Your task to perform on an android device: Clear the shopping cart on ebay.com. Add usb-b to the cart on ebay.com, then select checkout. Image 0: 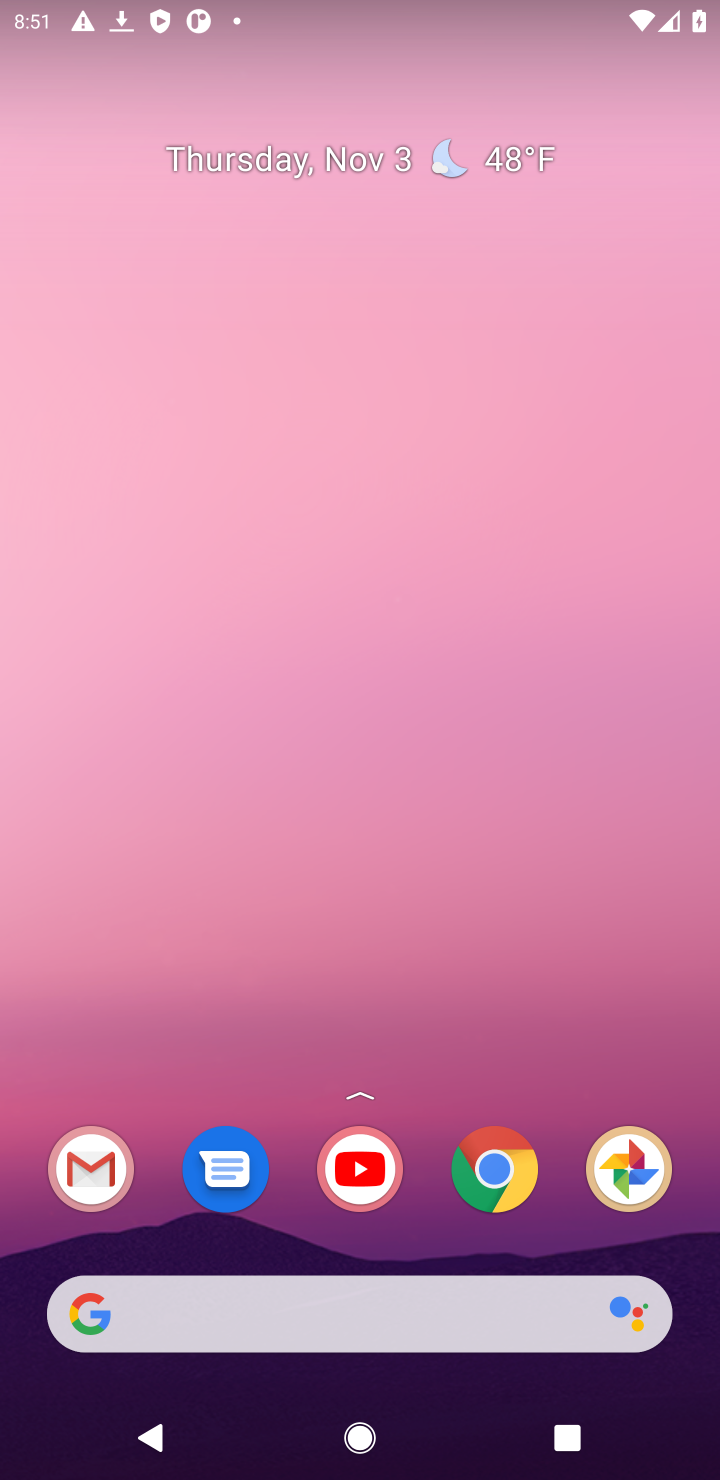
Step 0: drag from (421, 825) to (394, 51)
Your task to perform on an android device: Clear the shopping cart on ebay.com. Add usb-b to the cart on ebay.com, then select checkout. Image 1: 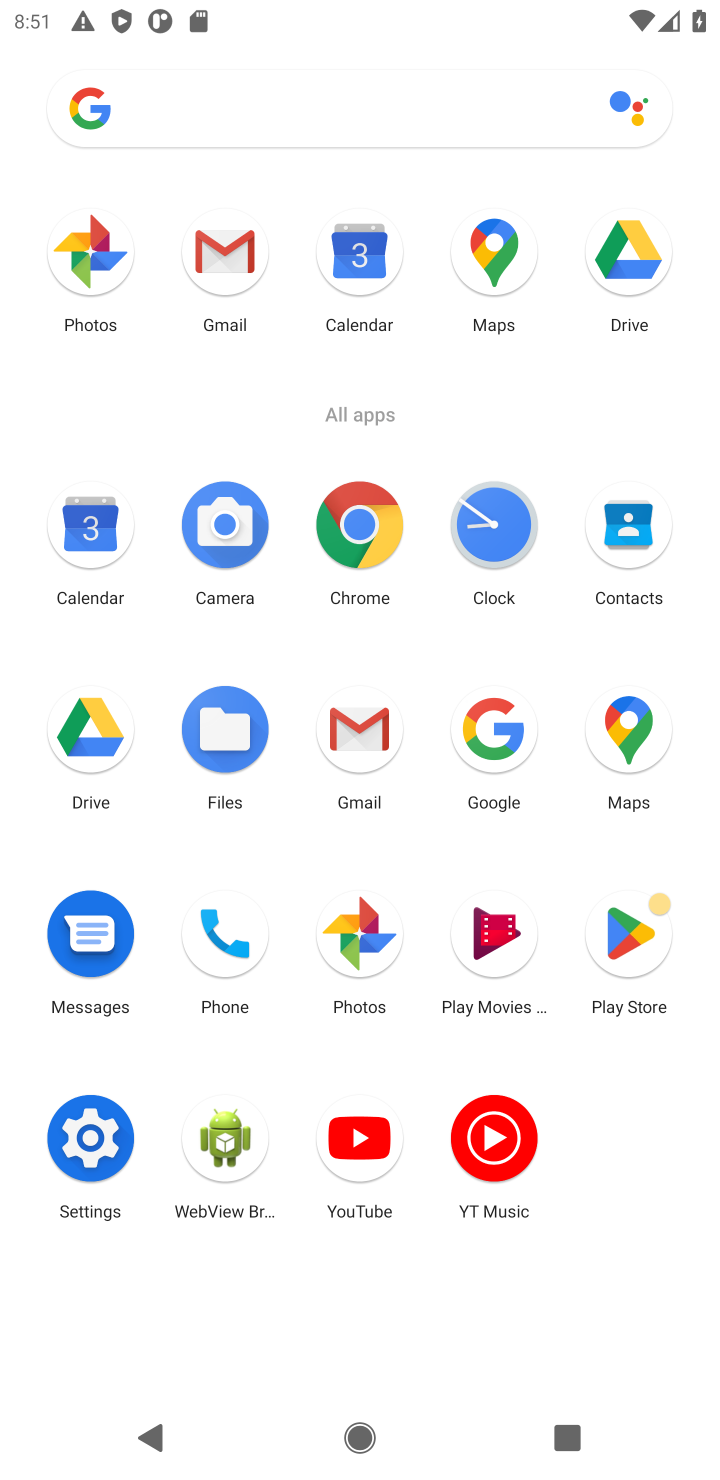
Step 1: click (348, 527)
Your task to perform on an android device: Clear the shopping cart on ebay.com. Add usb-b to the cart on ebay.com, then select checkout. Image 2: 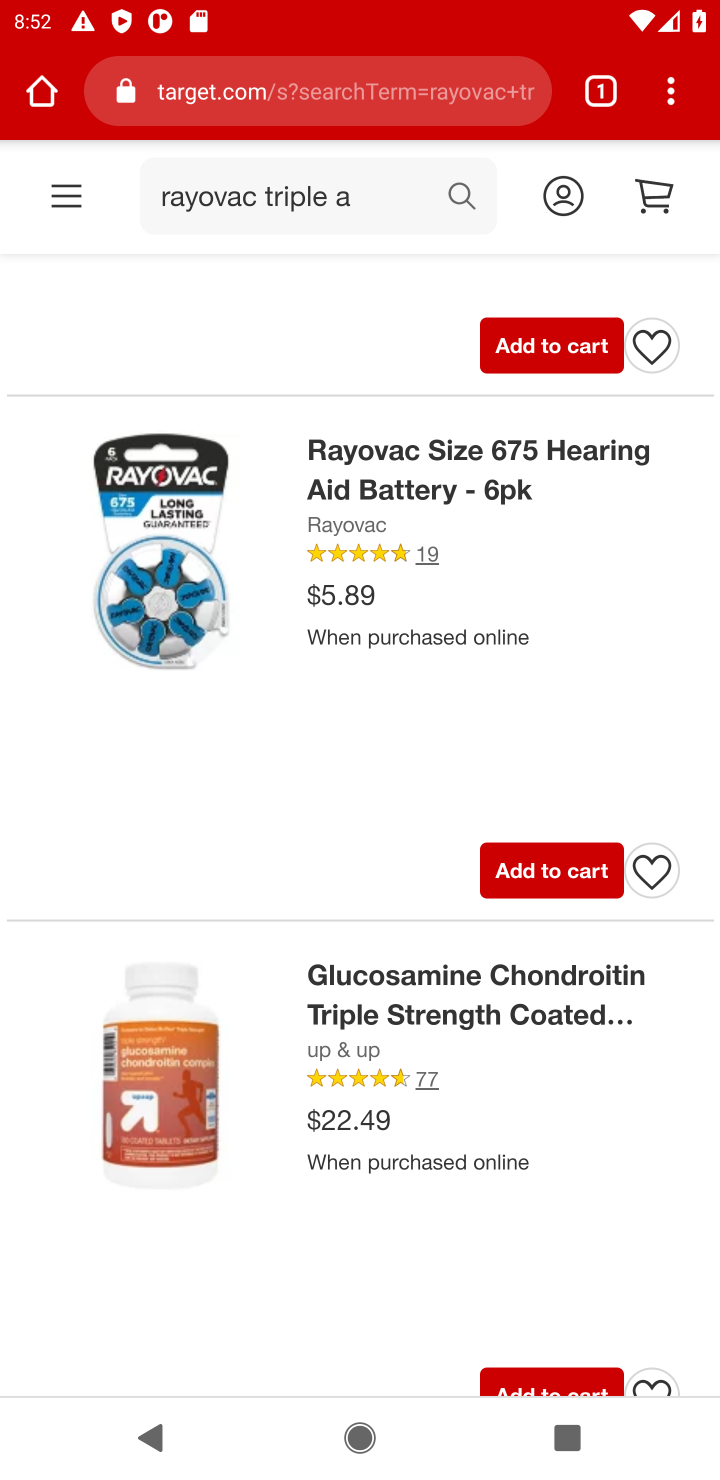
Step 2: click (491, 86)
Your task to perform on an android device: Clear the shopping cart on ebay.com. Add usb-b to the cart on ebay.com, then select checkout. Image 3: 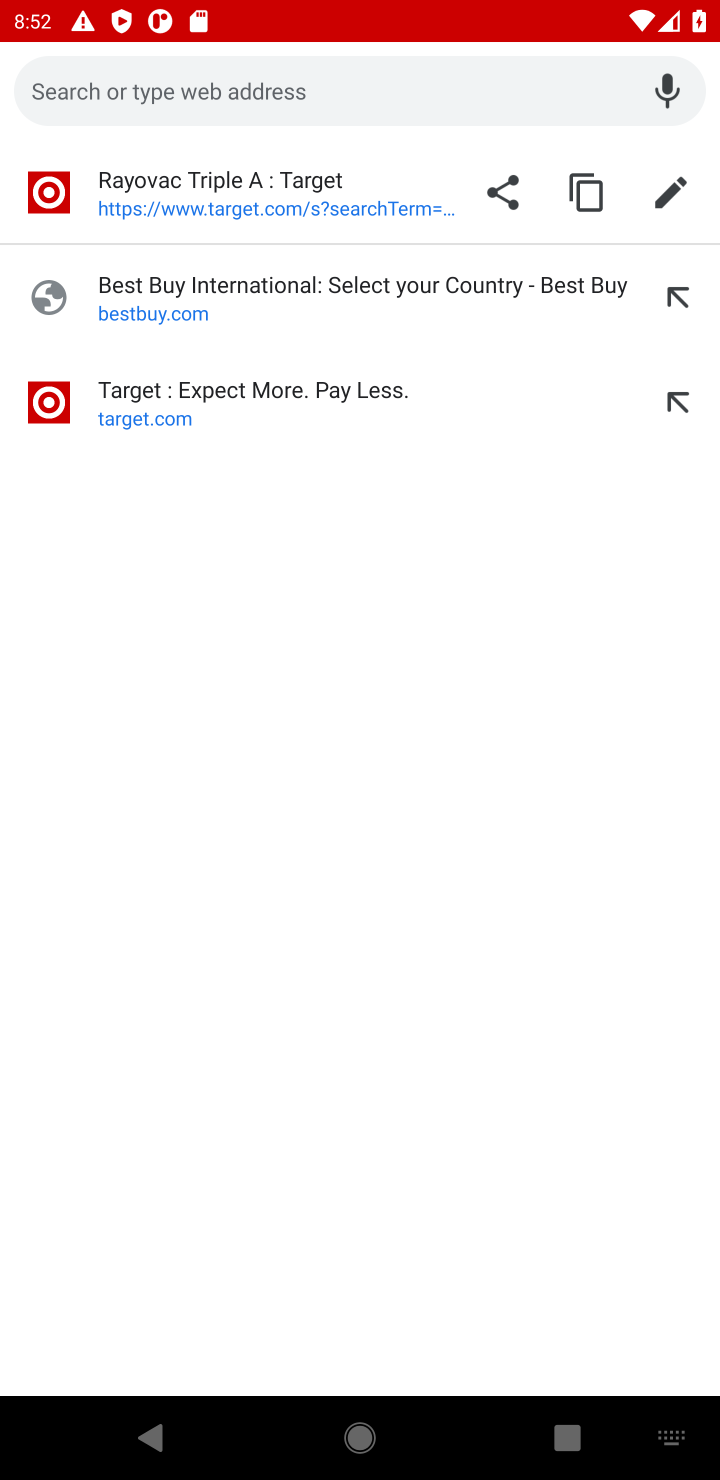
Step 3: type "ebay.com"
Your task to perform on an android device: Clear the shopping cart on ebay.com. Add usb-b to the cart on ebay.com, then select checkout. Image 4: 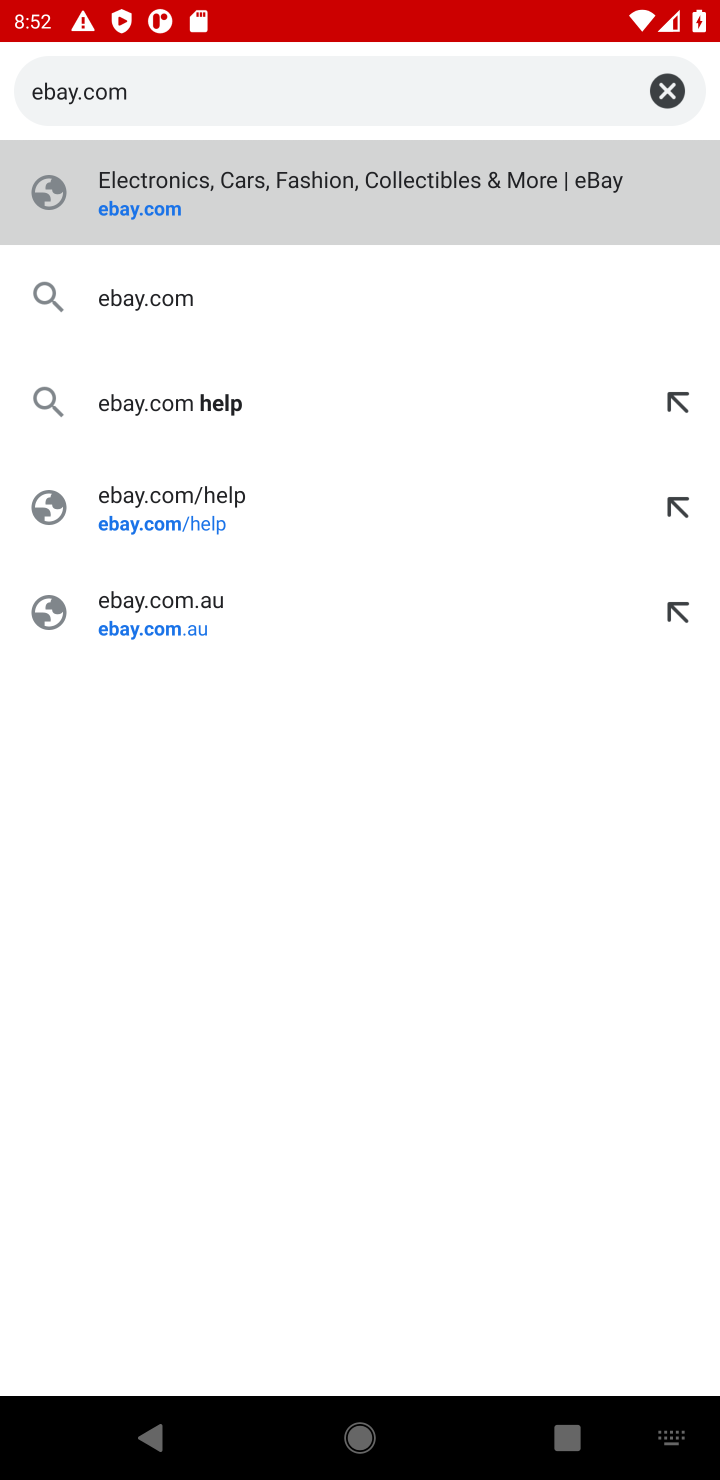
Step 4: press enter
Your task to perform on an android device: Clear the shopping cart on ebay.com. Add usb-b to the cart on ebay.com, then select checkout. Image 5: 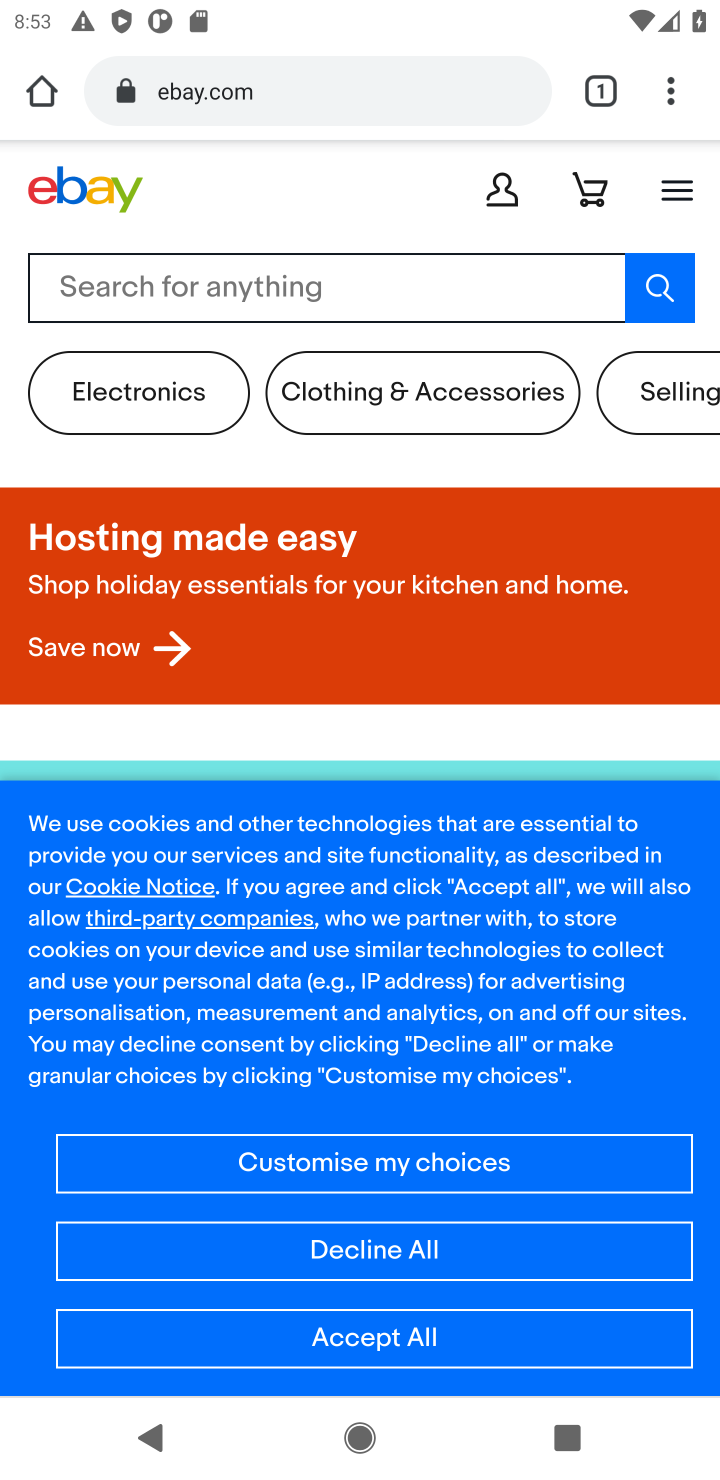
Step 5: click (570, 187)
Your task to perform on an android device: Clear the shopping cart on ebay.com. Add usb-b to the cart on ebay.com, then select checkout. Image 6: 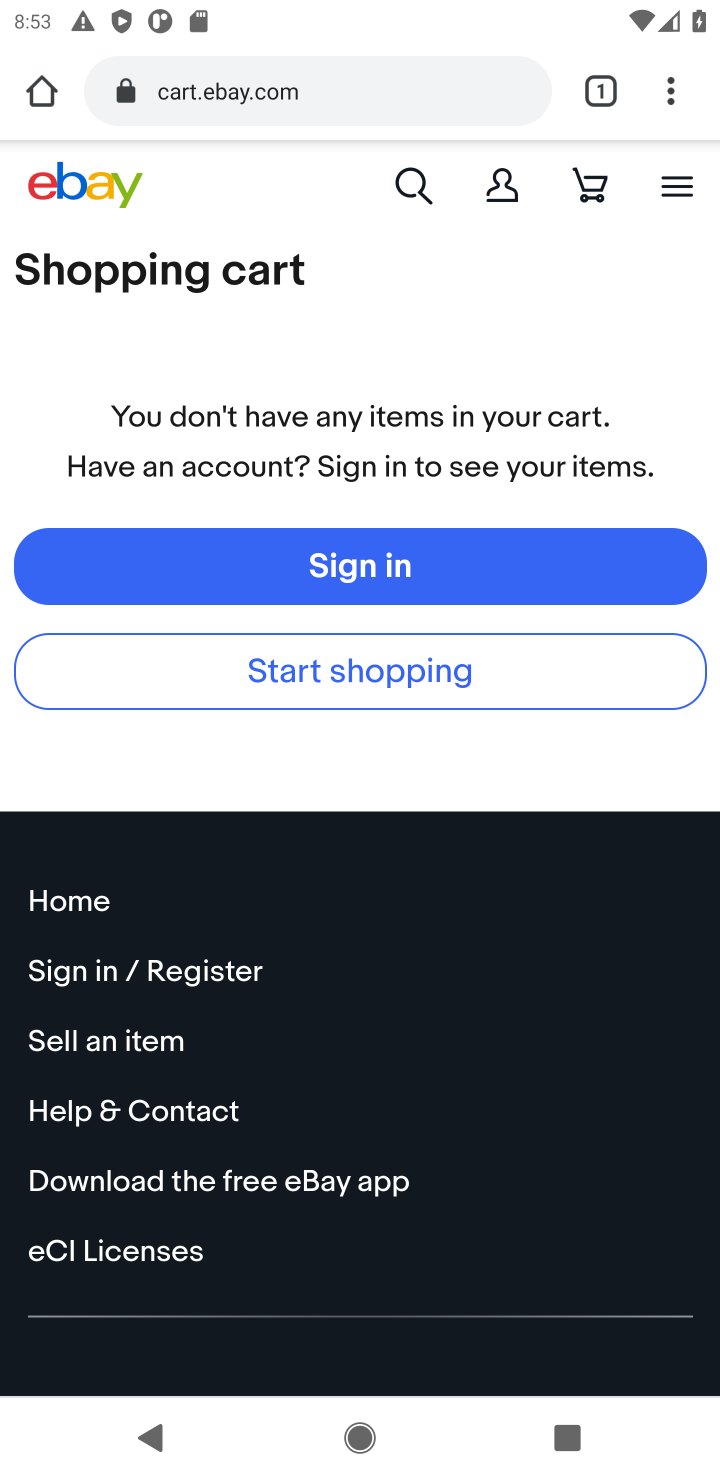
Step 6: click (407, 194)
Your task to perform on an android device: Clear the shopping cart on ebay.com. Add usb-b to the cart on ebay.com, then select checkout. Image 7: 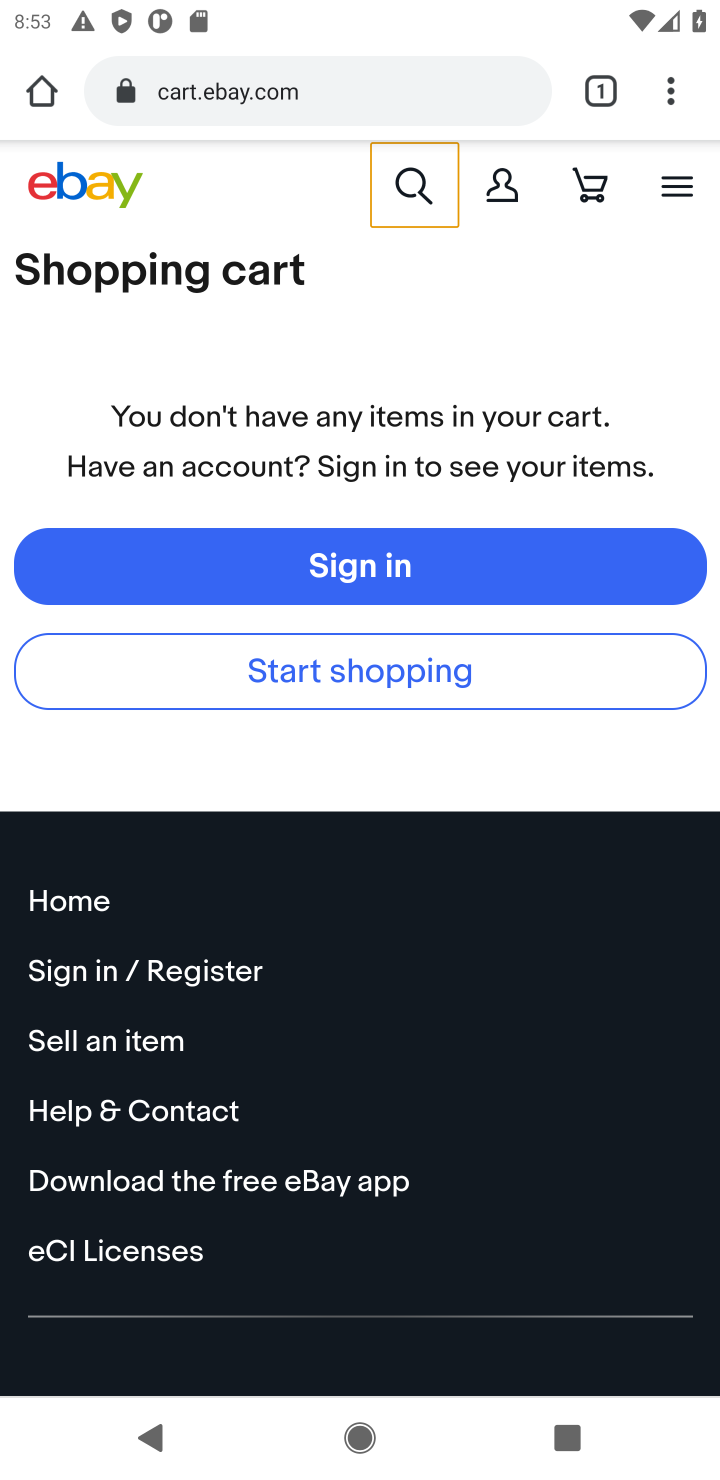
Step 7: click (438, 681)
Your task to perform on an android device: Clear the shopping cart on ebay.com. Add usb-b to the cart on ebay.com, then select checkout. Image 8: 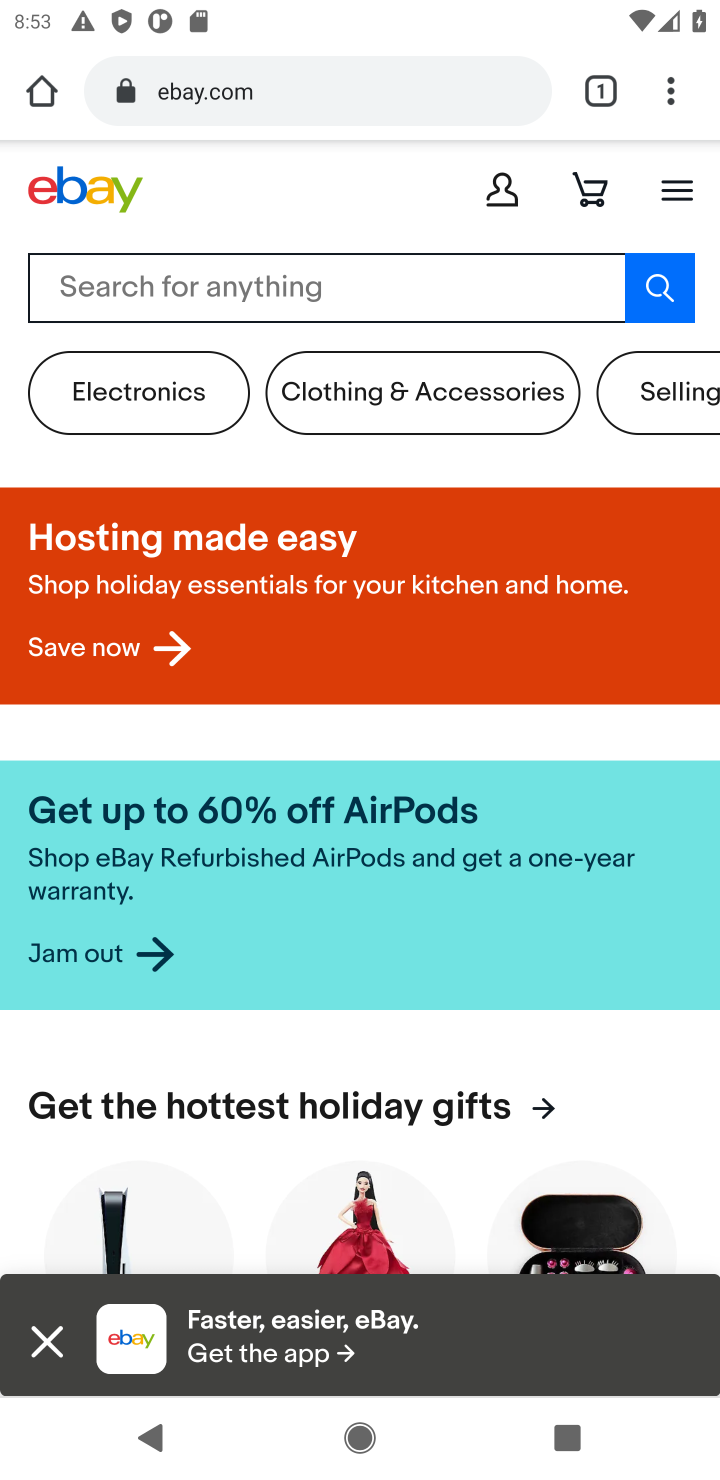
Step 8: click (386, 291)
Your task to perform on an android device: Clear the shopping cart on ebay.com. Add usb-b to the cart on ebay.com, then select checkout. Image 9: 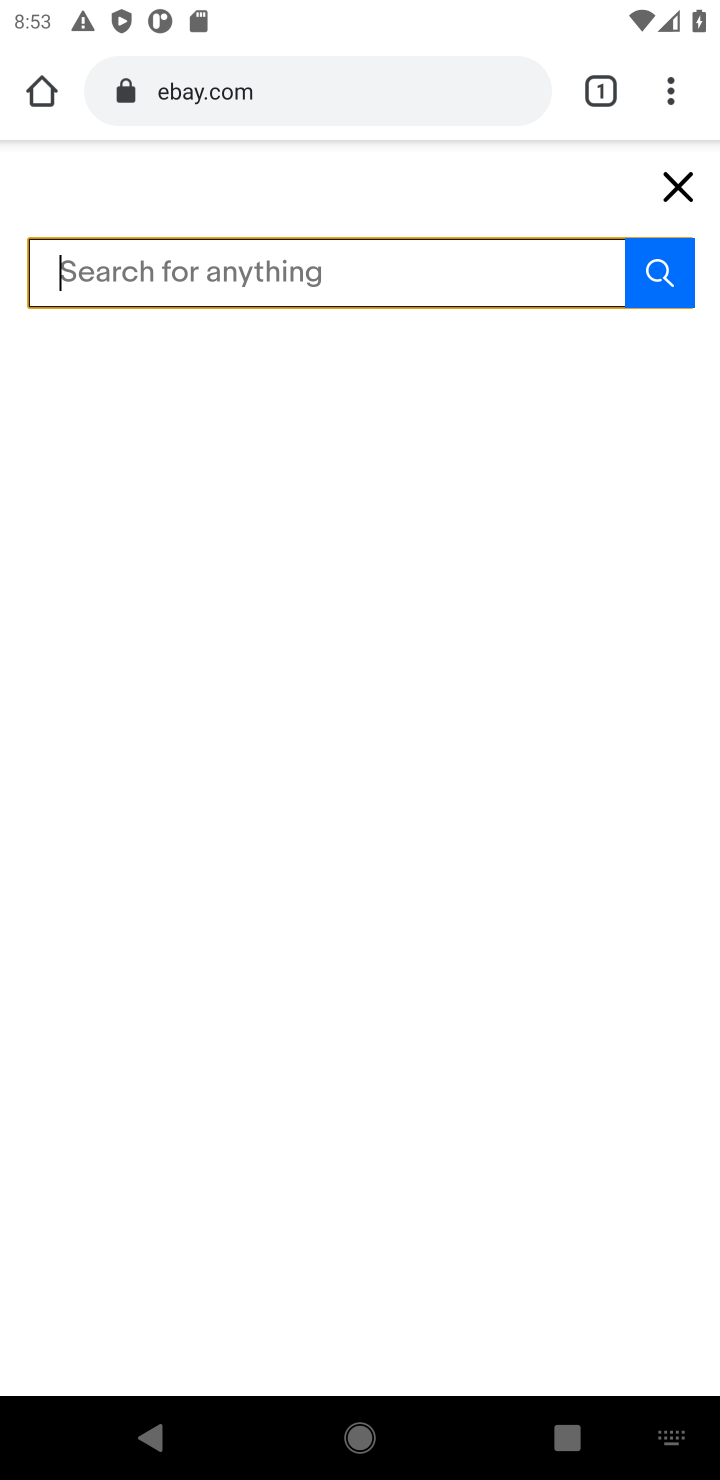
Step 9: type "usb-b"
Your task to perform on an android device: Clear the shopping cart on ebay.com. Add usb-b to the cart on ebay.com, then select checkout. Image 10: 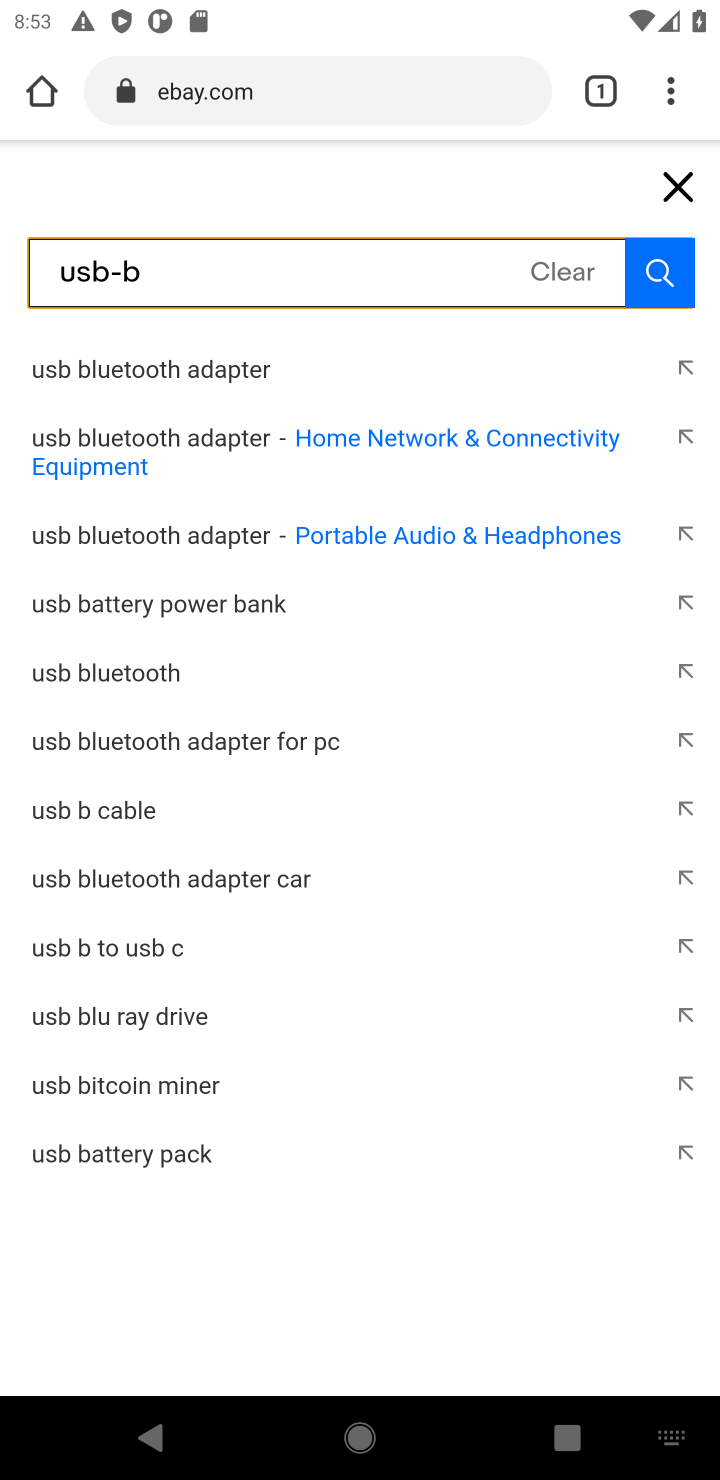
Step 10: press enter
Your task to perform on an android device: Clear the shopping cart on ebay.com. Add usb-b to the cart on ebay.com, then select checkout. Image 11: 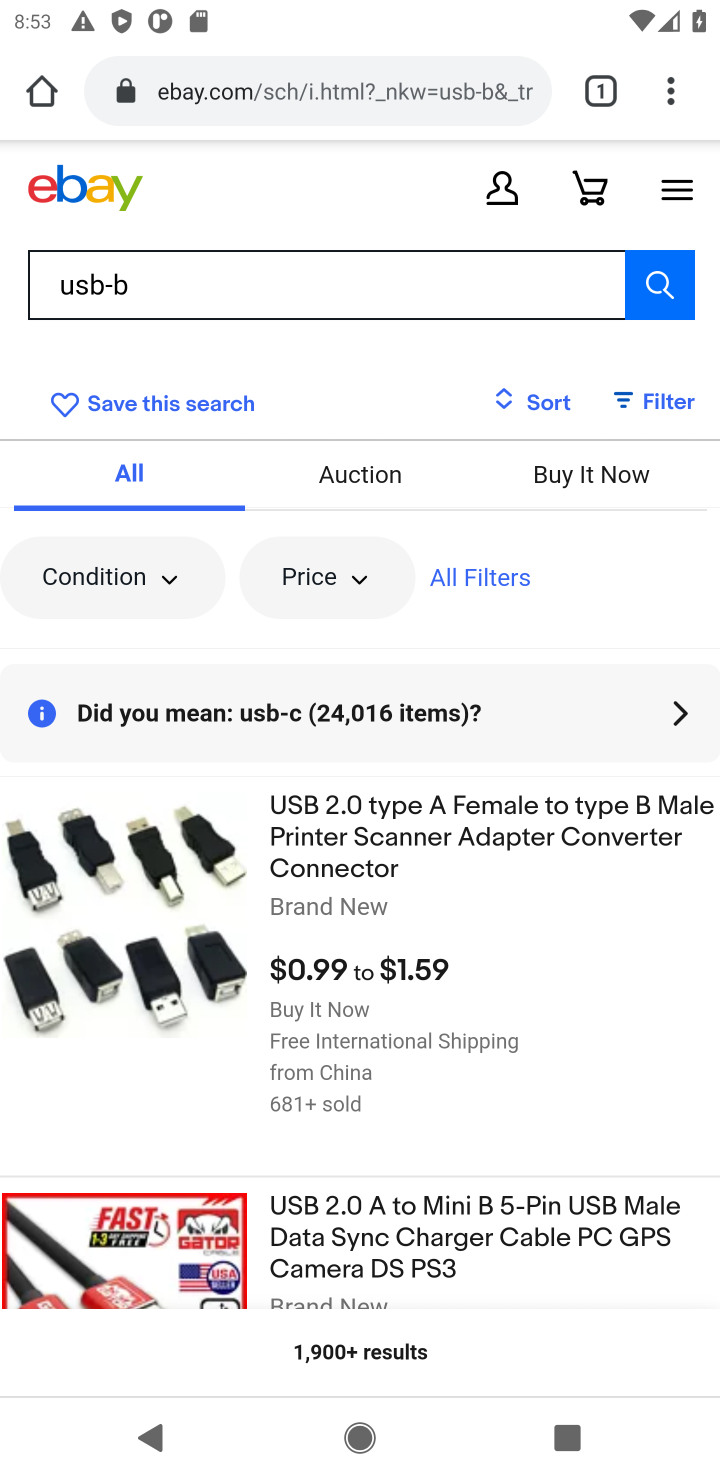
Step 11: drag from (303, 1235) to (373, 771)
Your task to perform on an android device: Clear the shopping cart on ebay.com. Add usb-b to the cart on ebay.com, then select checkout. Image 12: 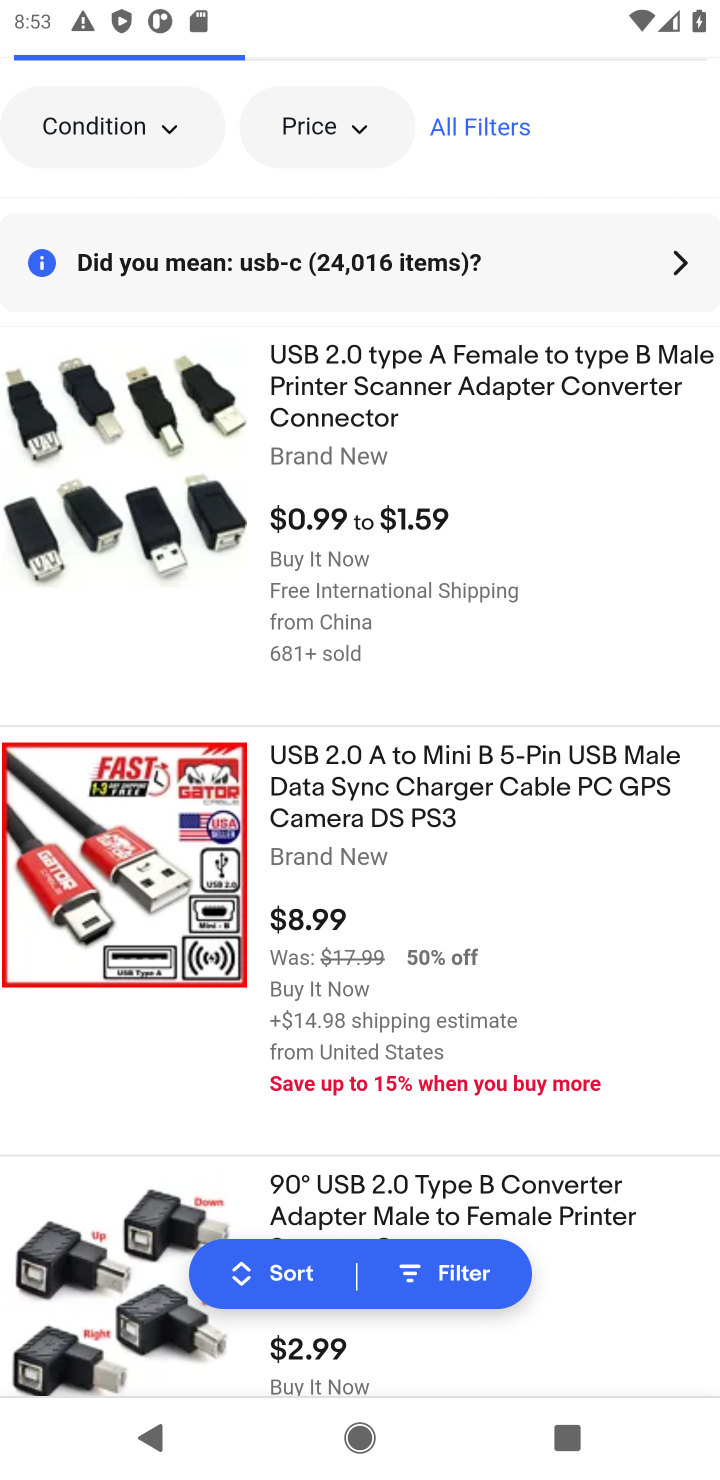
Step 12: click (175, 450)
Your task to perform on an android device: Clear the shopping cart on ebay.com. Add usb-b to the cart on ebay.com, then select checkout. Image 13: 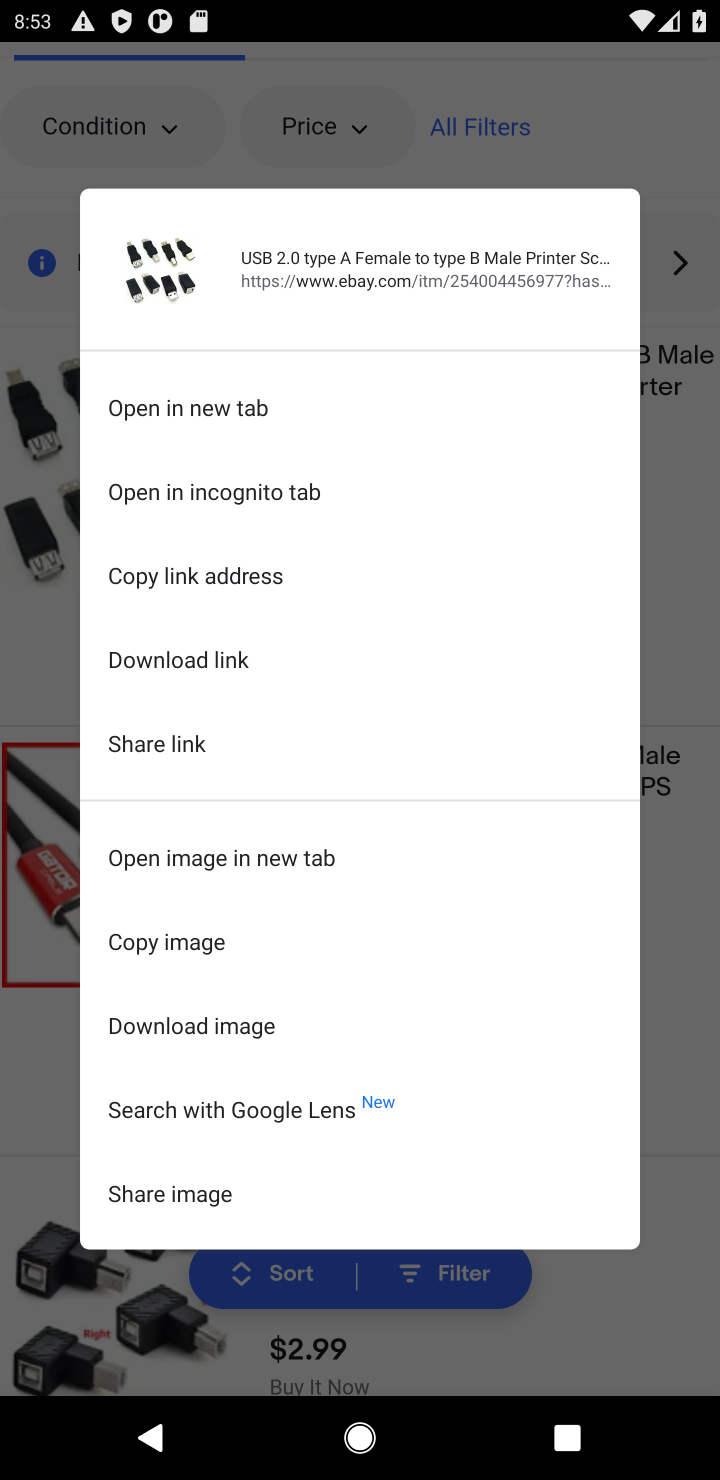
Step 13: click (294, 140)
Your task to perform on an android device: Clear the shopping cart on ebay.com. Add usb-b to the cart on ebay.com, then select checkout. Image 14: 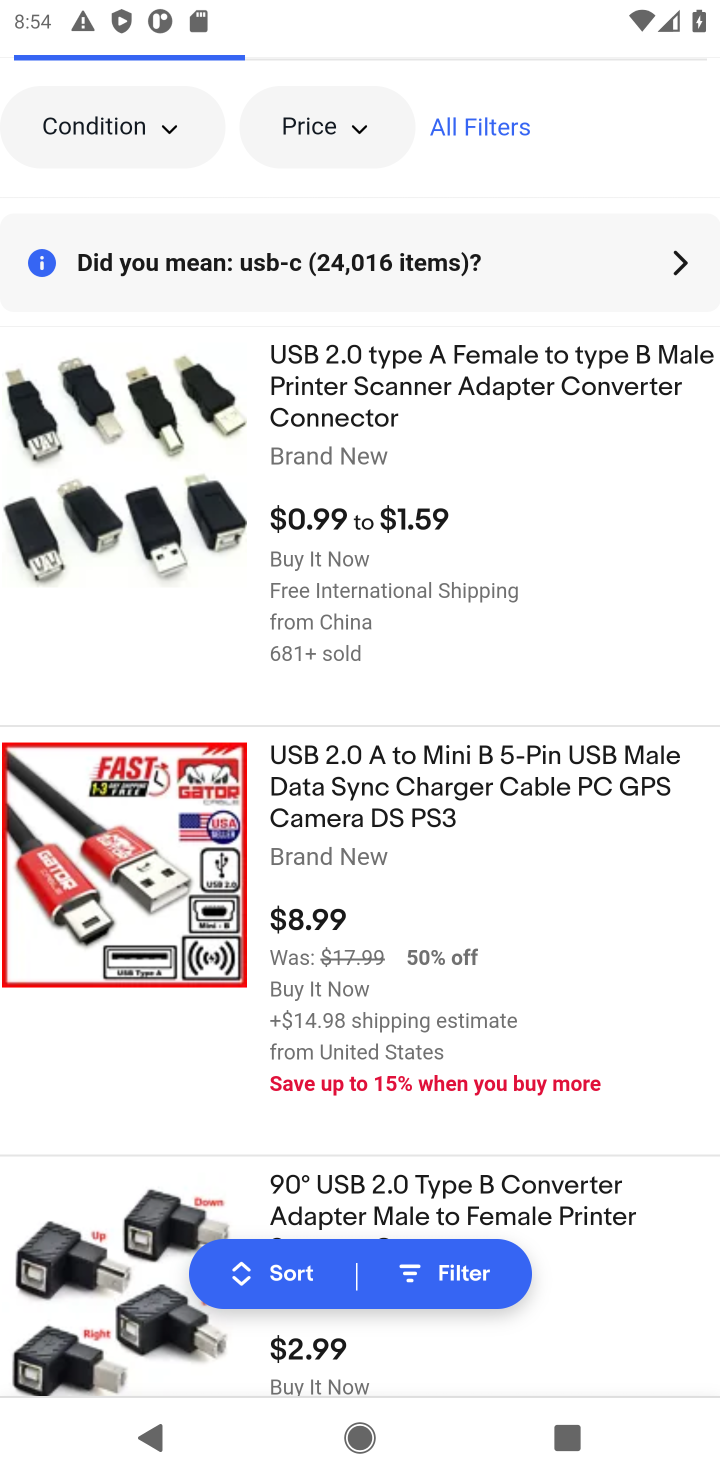
Step 14: click (331, 112)
Your task to perform on an android device: Clear the shopping cart on ebay.com. Add usb-b to the cart on ebay.com, then select checkout. Image 15: 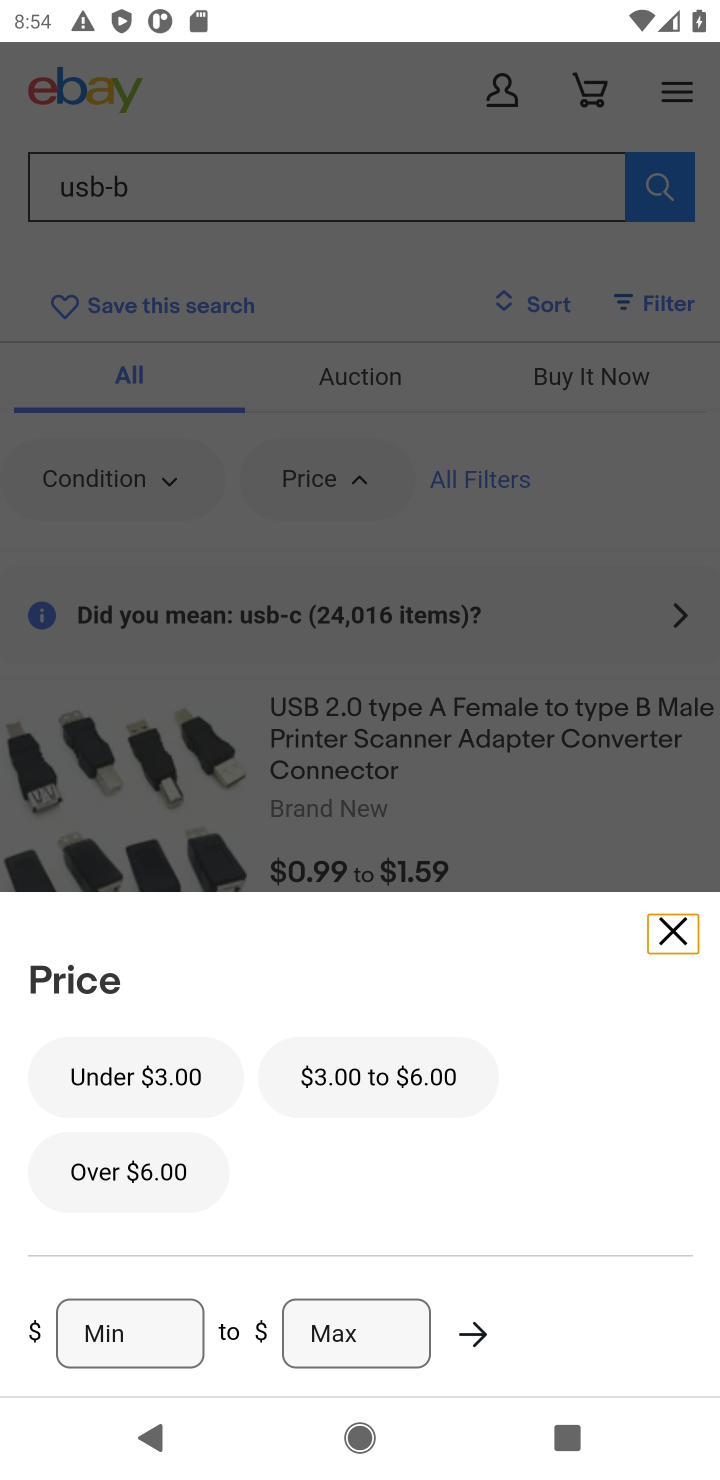
Step 15: click (298, 394)
Your task to perform on an android device: Clear the shopping cart on ebay.com. Add usb-b to the cart on ebay.com, then select checkout. Image 16: 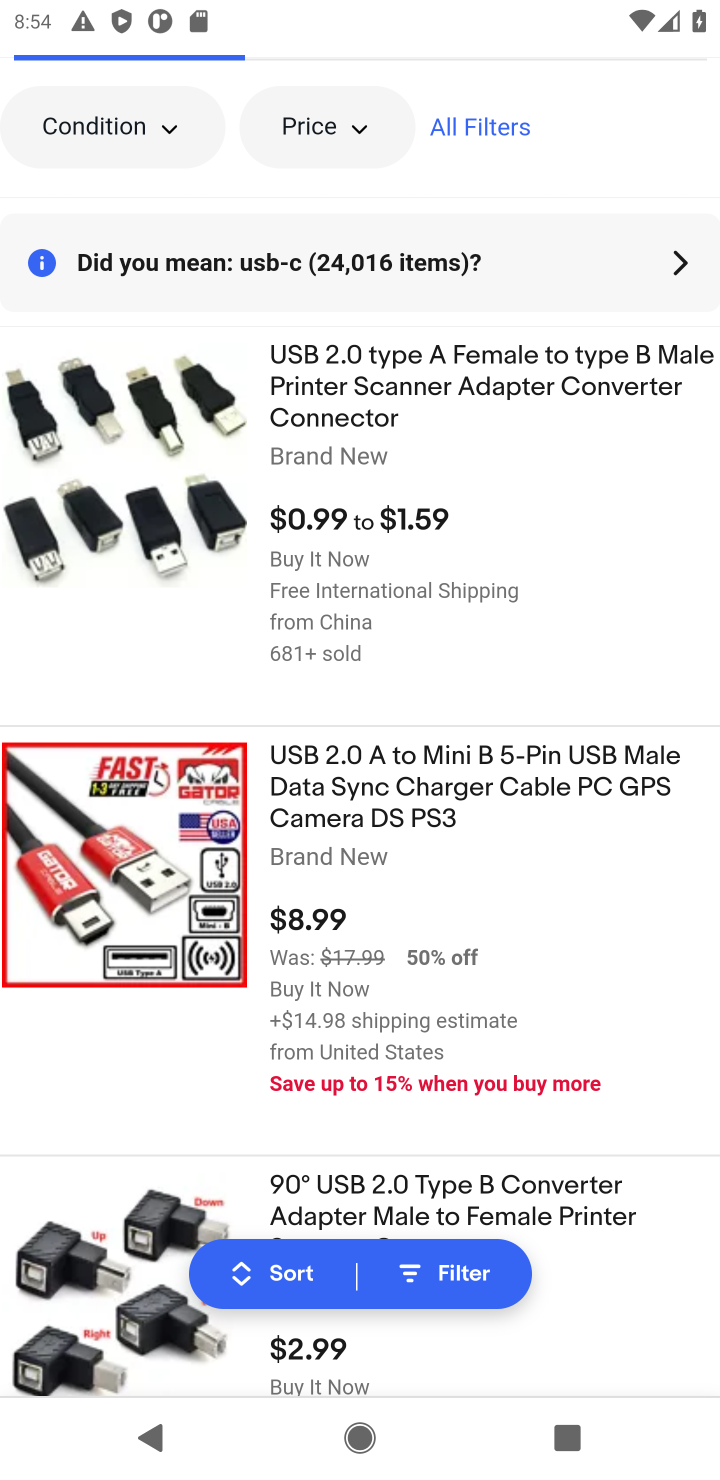
Step 16: click (122, 478)
Your task to perform on an android device: Clear the shopping cart on ebay.com. Add usb-b to the cart on ebay.com, then select checkout. Image 17: 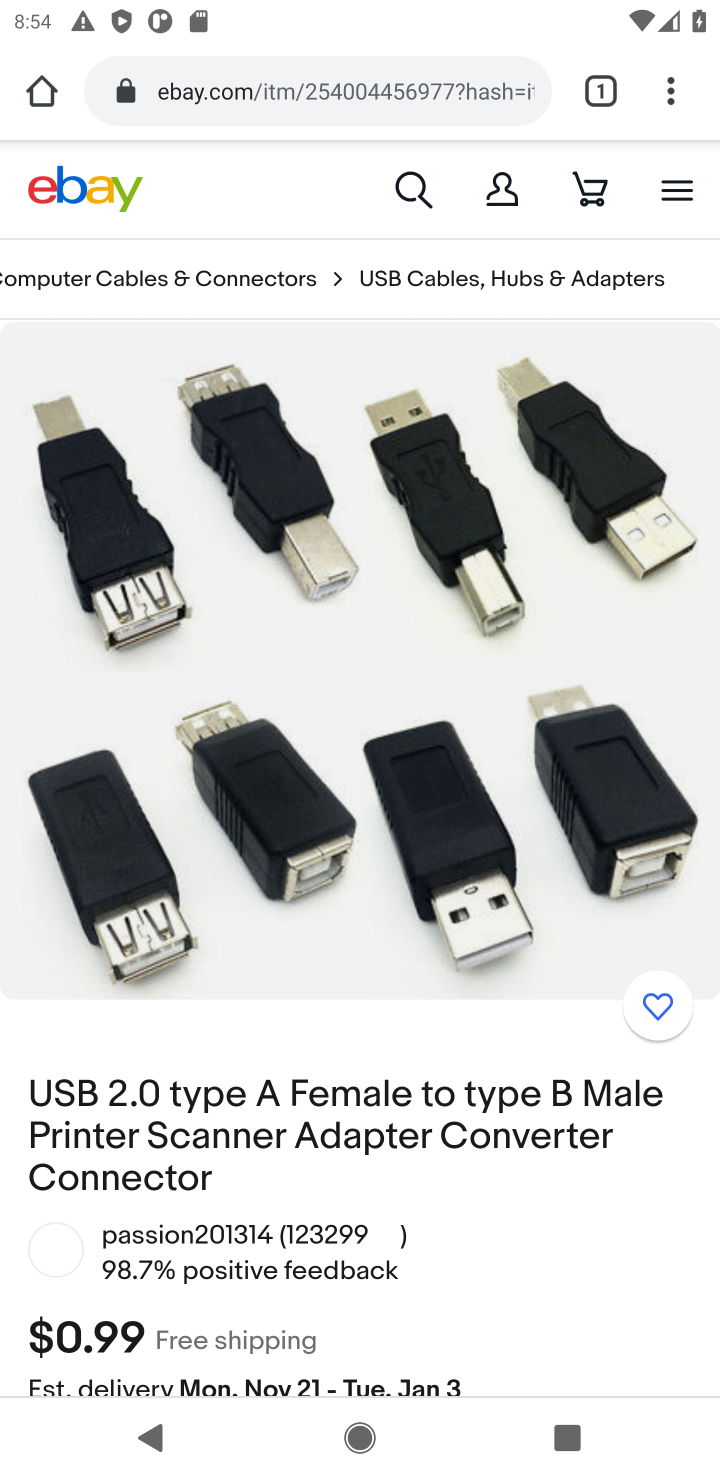
Step 17: drag from (311, 745) to (312, 423)
Your task to perform on an android device: Clear the shopping cart on ebay.com. Add usb-b to the cart on ebay.com, then select checkout. Image 18: 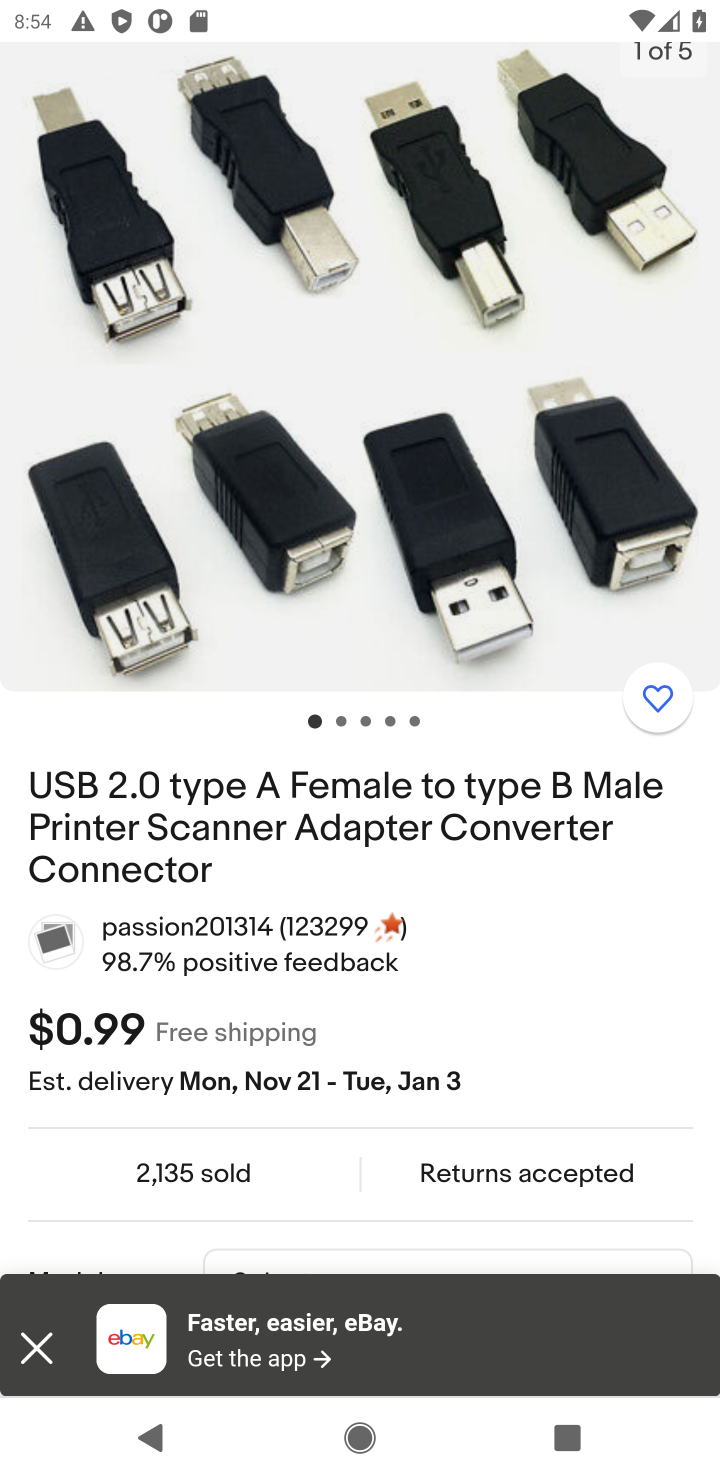
Step 18: drag from (361, 790) to (419, 320)
Your task to perform on an android device: Clear the shopping cart on ebay.com. Add usb-b to the cart on ebay.com, then select checkout. Image 19: 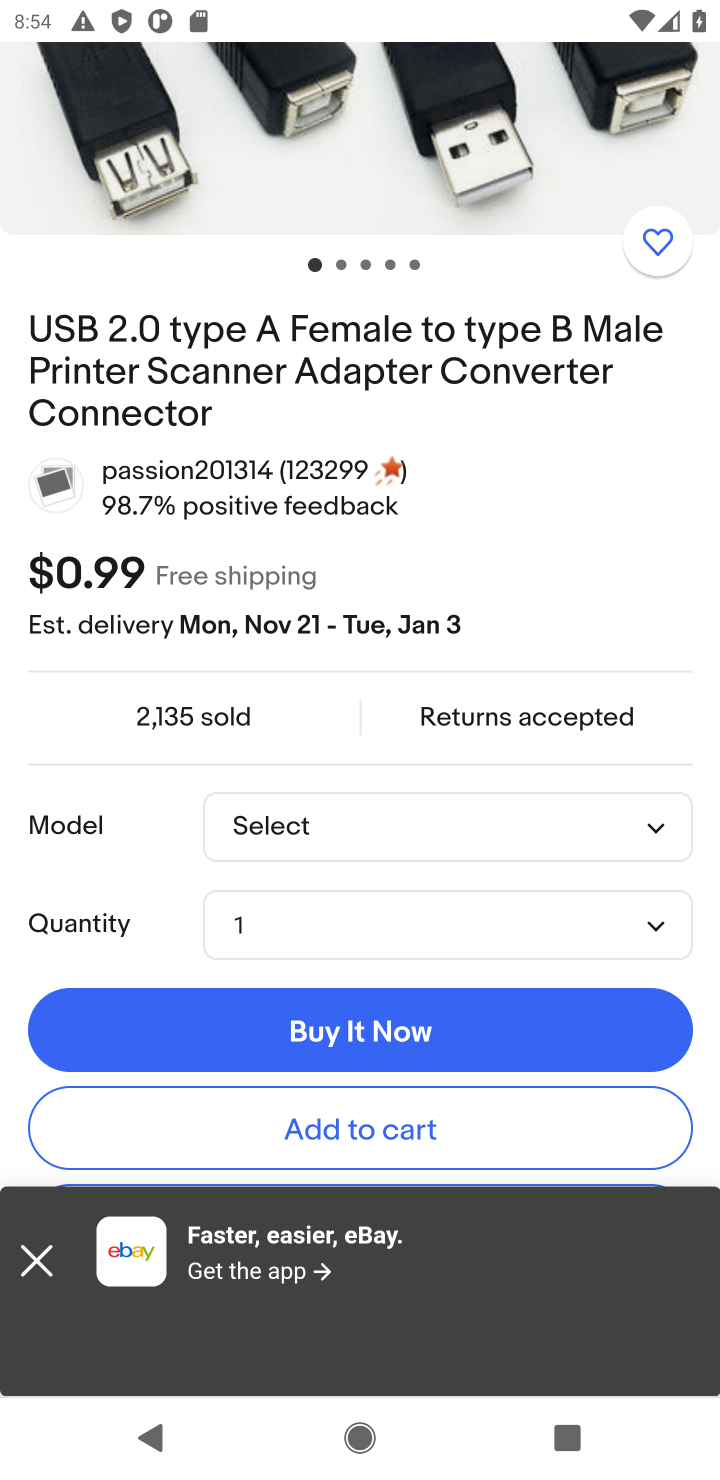
Step 19: drag from (371, 814) to (426, 489)
Your task to perform on an android device: Clear the shopping cart on ebay.com. Add usb-b to the cart on ebay.com, then select checkout. Image 20: 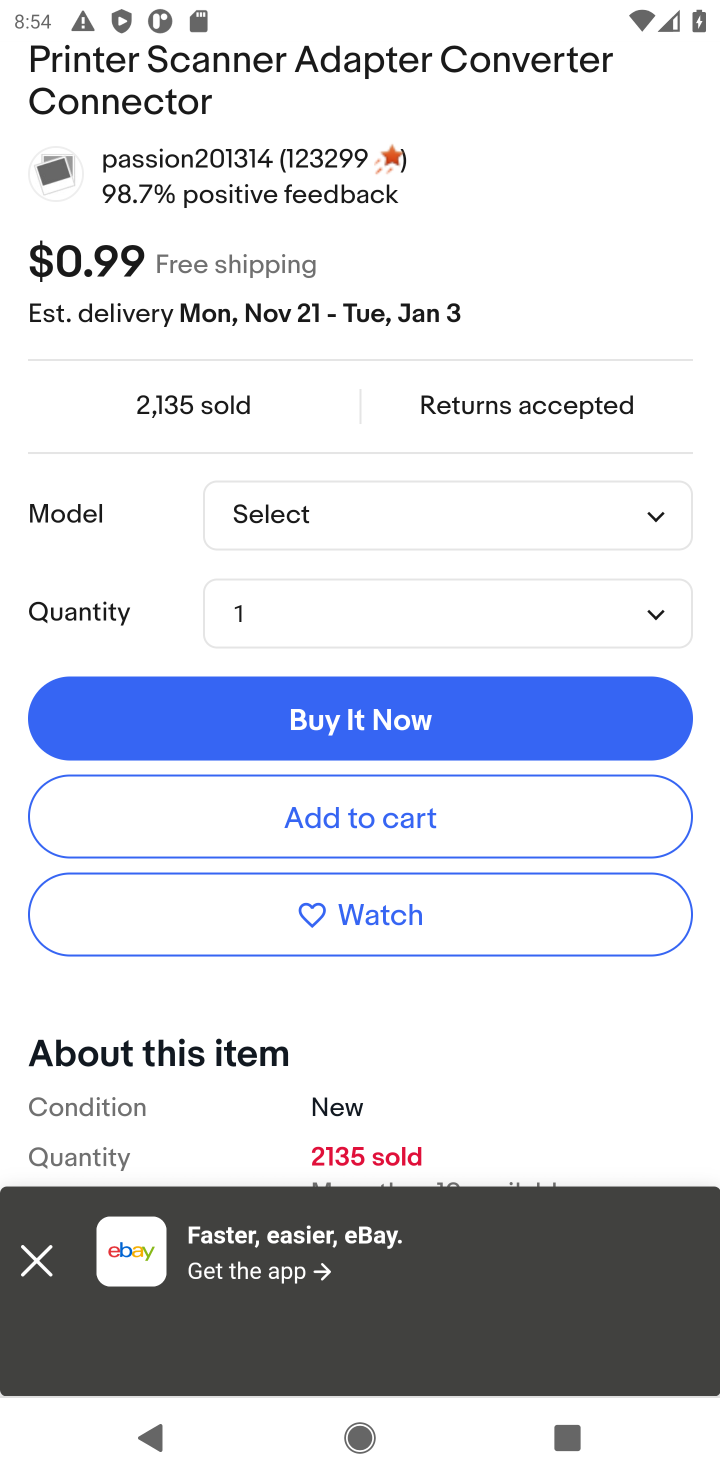
Step 20: click (328, 838)
Your task to perform on an android device: Clear the shopping cart on ebay.com. Add usb-b to the cart on ebay.com, then select checkout. Image 21: 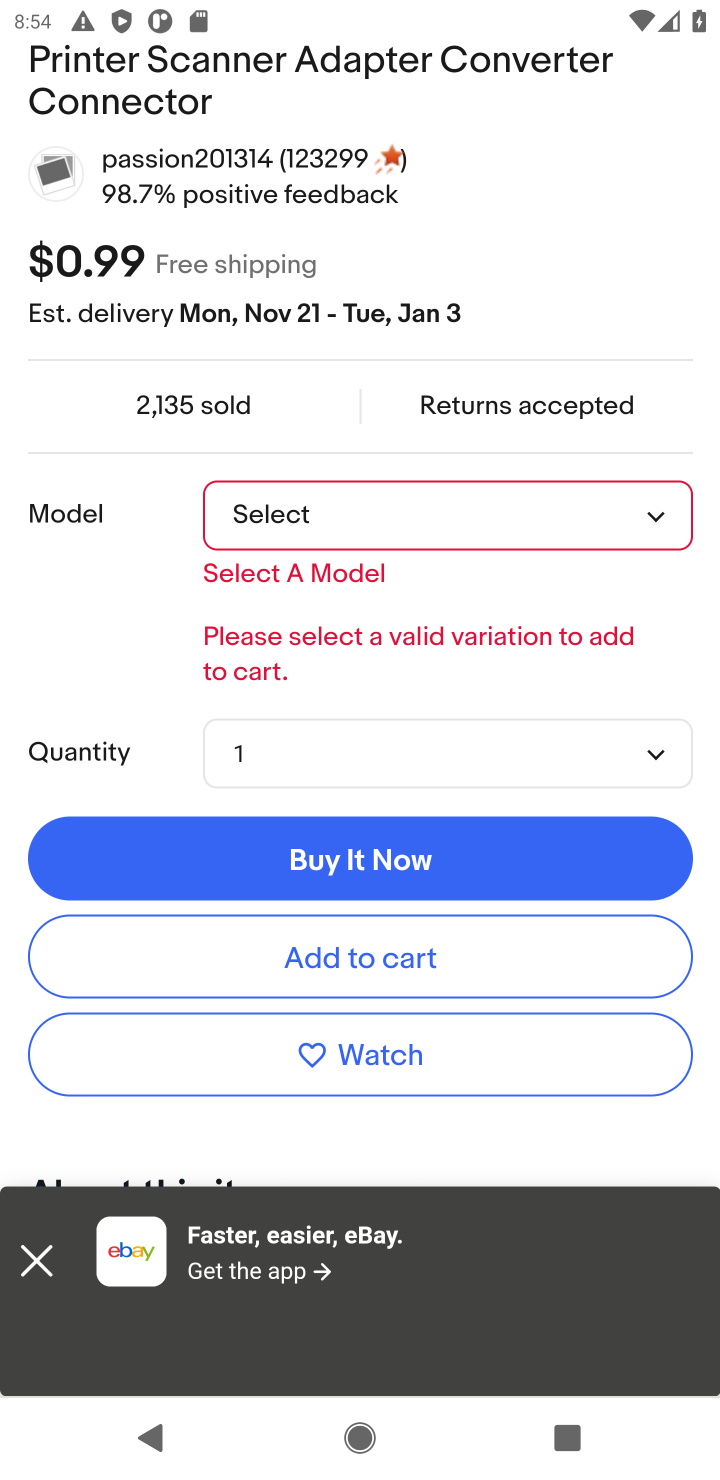
Step 21: click (437, 535)
Your task to perform on an android device: Clear the shopping cart on ebay.com. Add usb-b to the cart on ebay.com, then select checkout. Image 22: 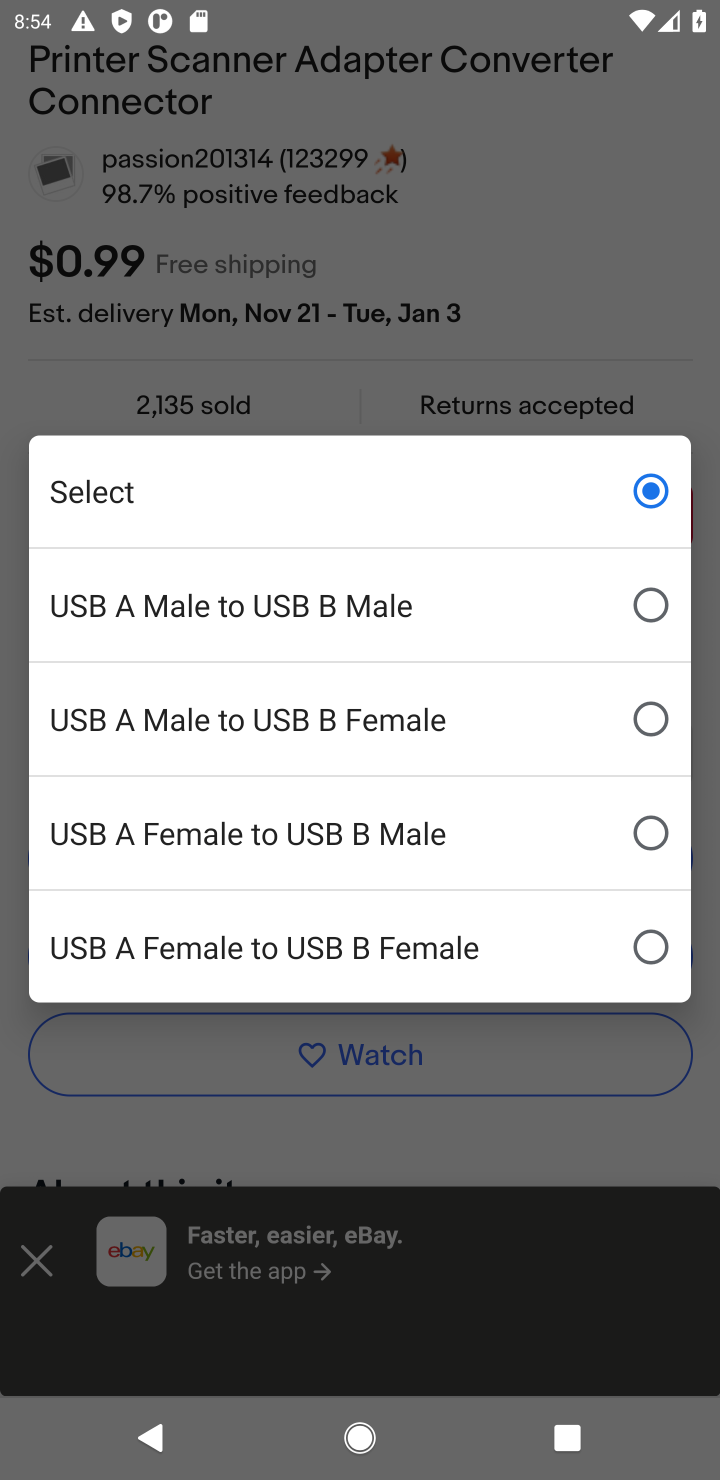
Step 22: click (441, 593)
Your task to perform on an android device: Clear the shopping cart on ebay.com. Add usb-b to the cart on ebay.com, then select checkout. Image 23: 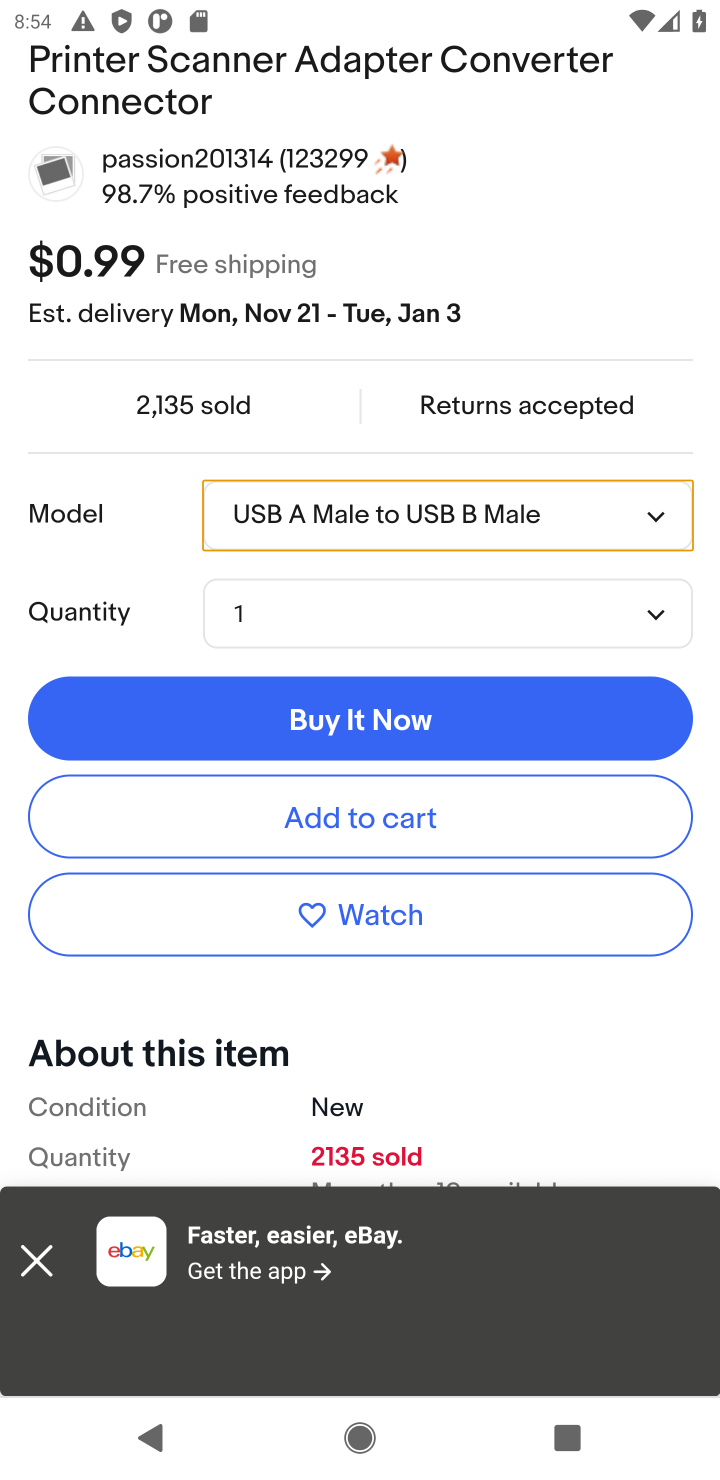
Step 23: click (536, 804)
Your task to perform on an android device: Clear the shopping cart on ebay.com. Add usb-b to the cart on ebay.com, then select checkout. Image 24: 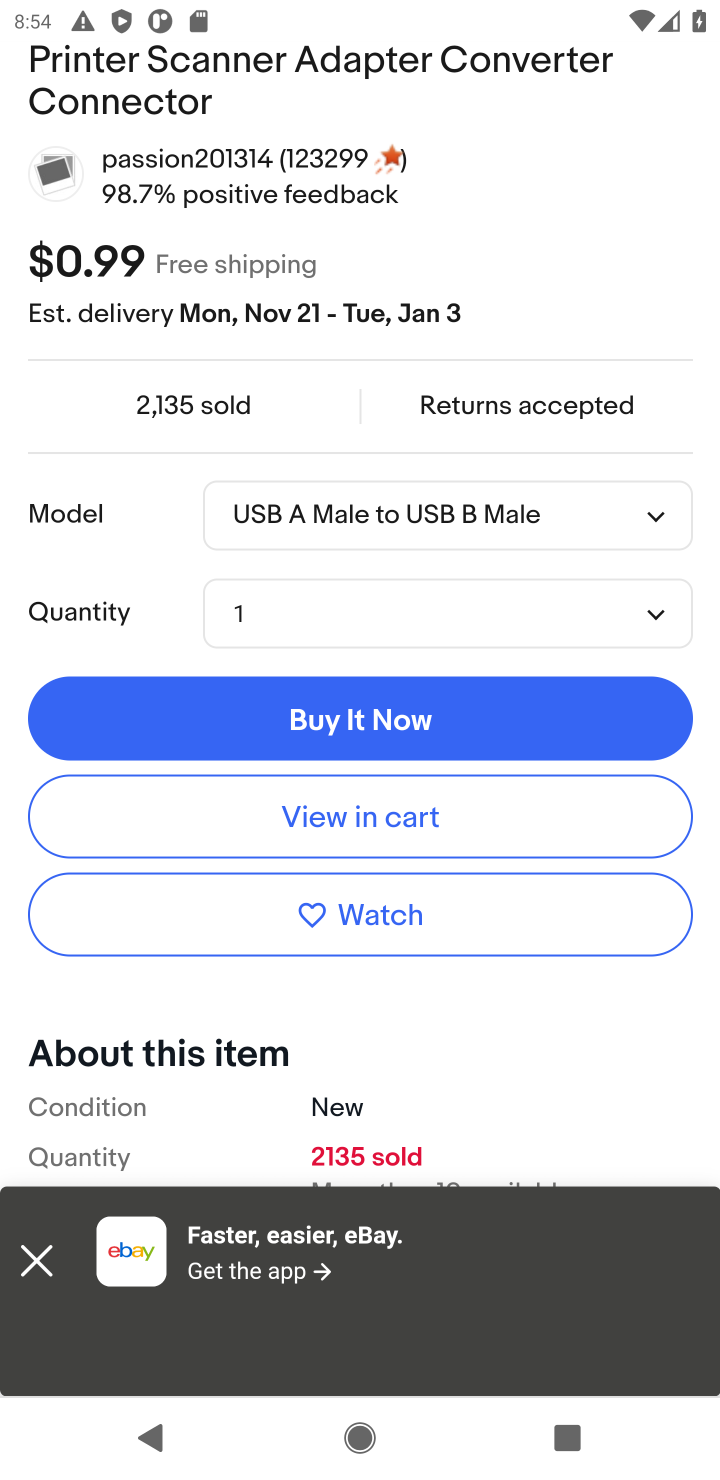
Step 24: click (546, 812)
Your task to perform on an android device: Clear the shopping cart on ebay.com. Add usb-b to the cart on ebay.com, then select checkout. Image 25: 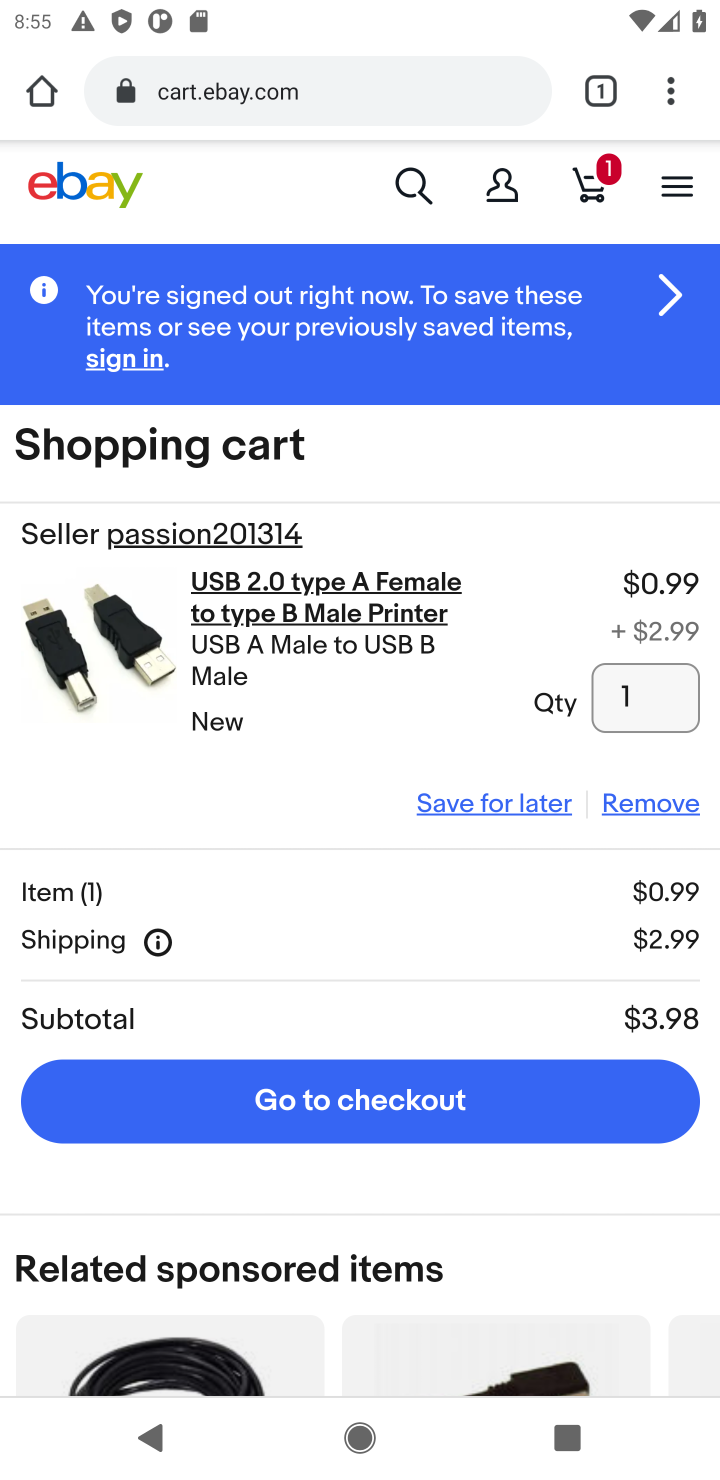
Step 25: click (450, 1091)
Your task to perform on an android device: Clear the shopping cart on ebay.com. Add usb-b to the cart on ebay.com, then select checkout. Image 26: 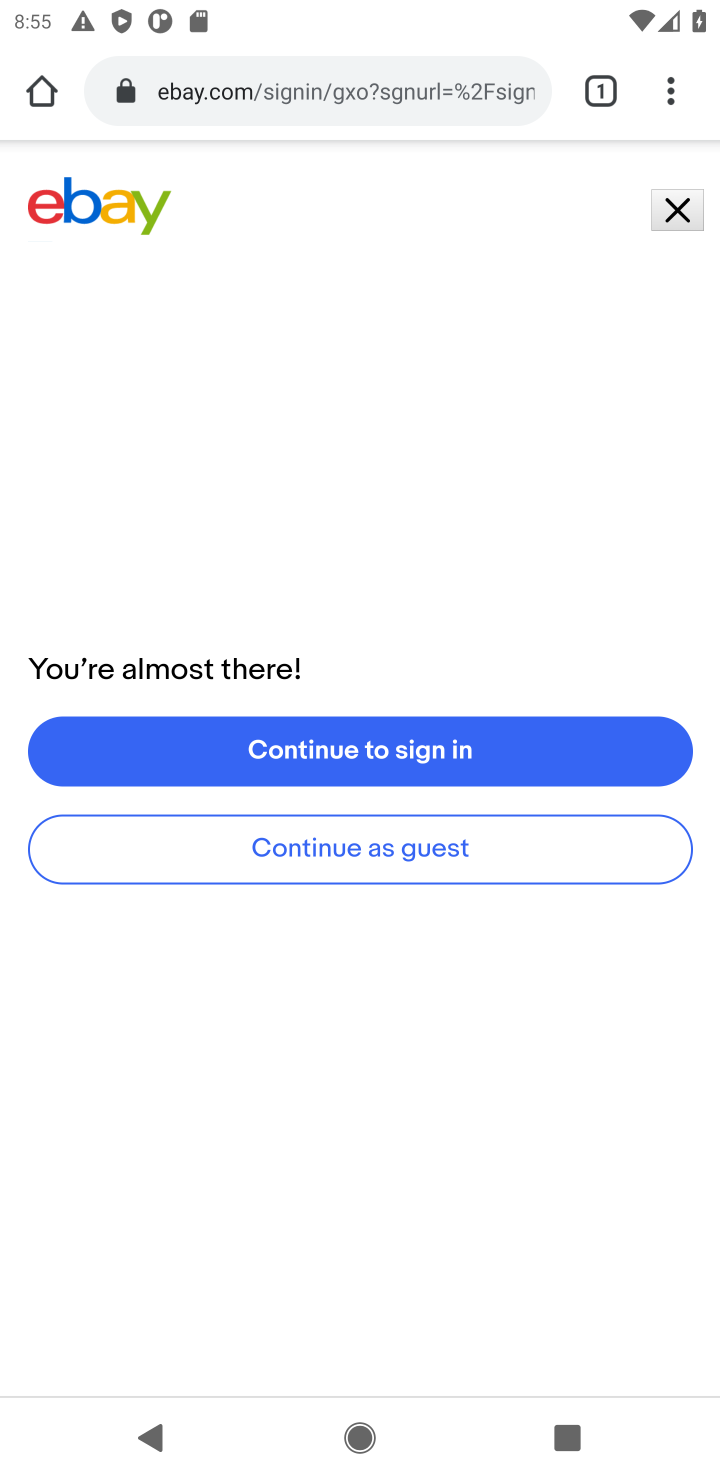
Step 26: task complete